Your task to perform on an android device: change the clock style Image 0: 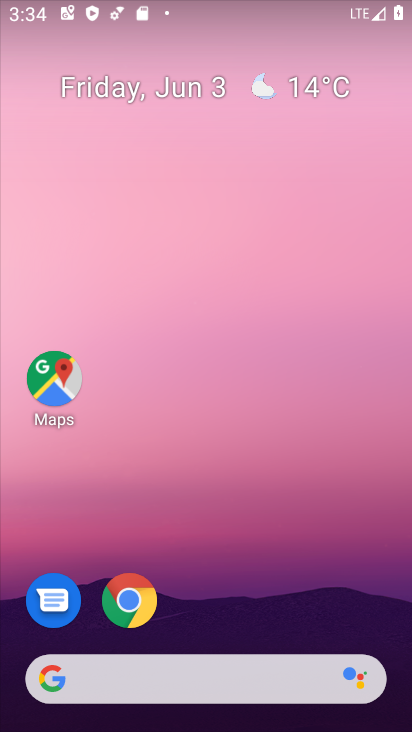
Step 0: drag from (308, 557) to (349, 179)
Your task to perform on an android device: change the clock style Image 1: 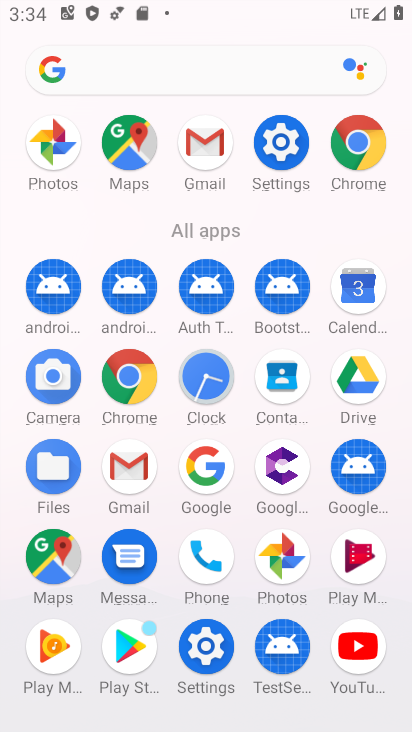
Step 1: click (212, 360)
Your task to perform on an android device: change the clock style Image 2: 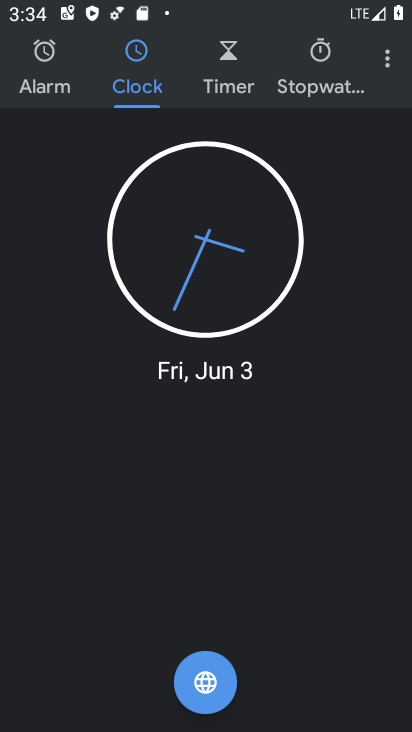
Step 2: click (395, 54)
Your task to perform on an android device: change the clock style Image 3: 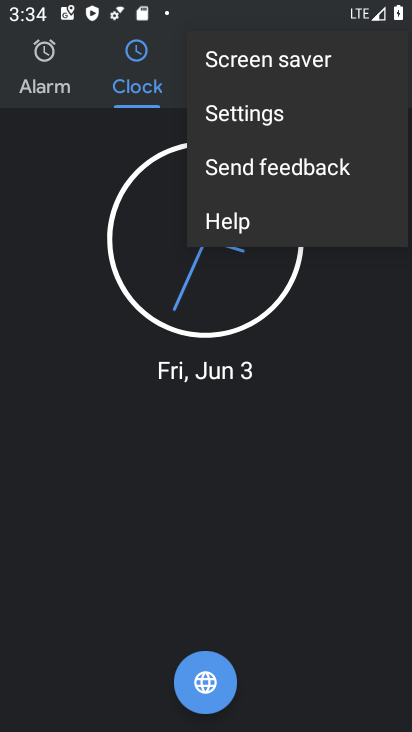
Step 3: click (337, 103)
Your task to perform on an android device: change the clock style Image 4: 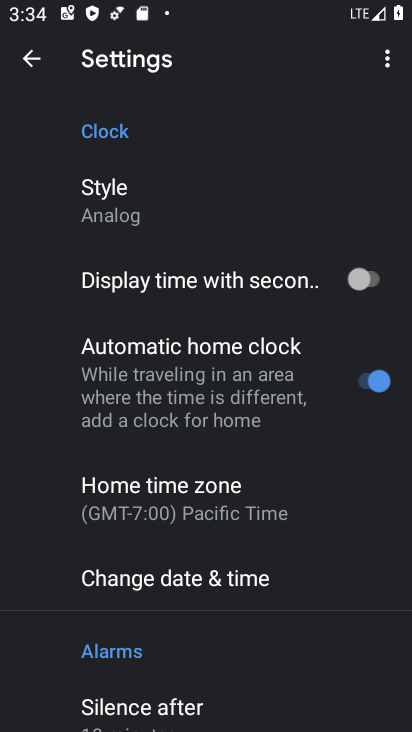
Step 4: click (175, 185)
Your task to perform on an android device: change the clock style Image 5: 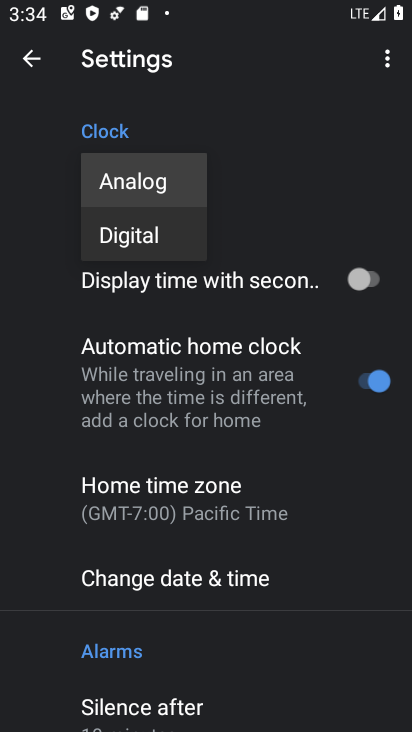
Step 5: click (172, 242)
Your task to perform on an android device: change the clock style Image 6: 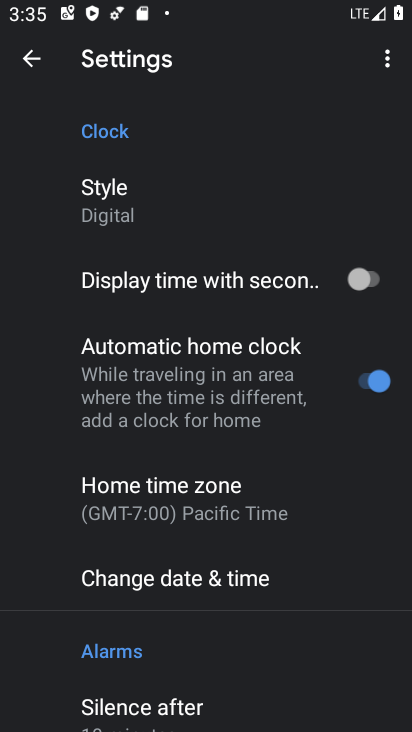
Step 6: task complete